Your task to perform on an android device: Show me productivity apps on the Play Store Image 0: 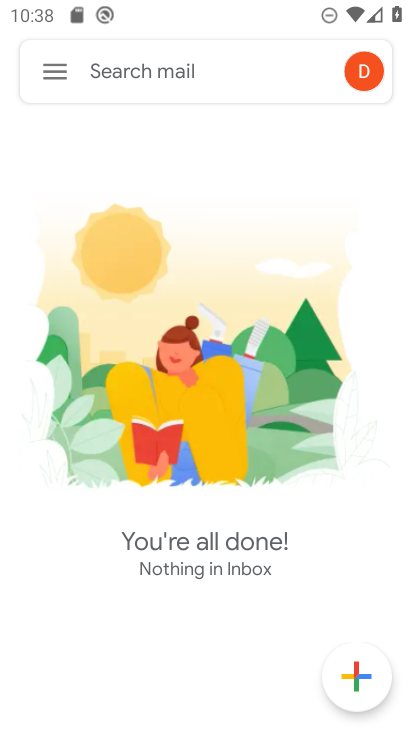
Step 0: press home button
Your task to perform on an android device: Show me productivity apps on the Play Store Image 1: 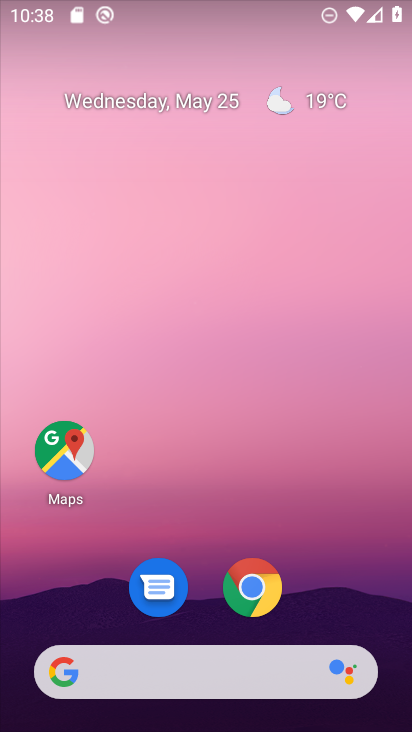
Step 1: drag from (393, 631) to (303, 69)
Your task to perform on an android device: Show me productivity apps on the Play Store Image 2: 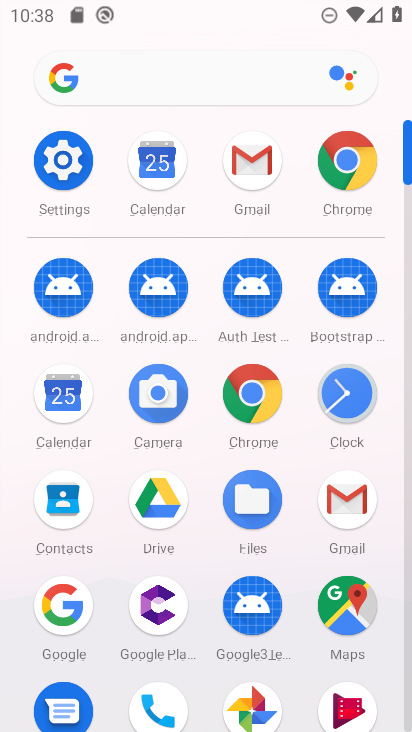
Step 2: click (409, 702)
Your task to perform on an android device: Show me productivity apps on the Play Store Image 3: 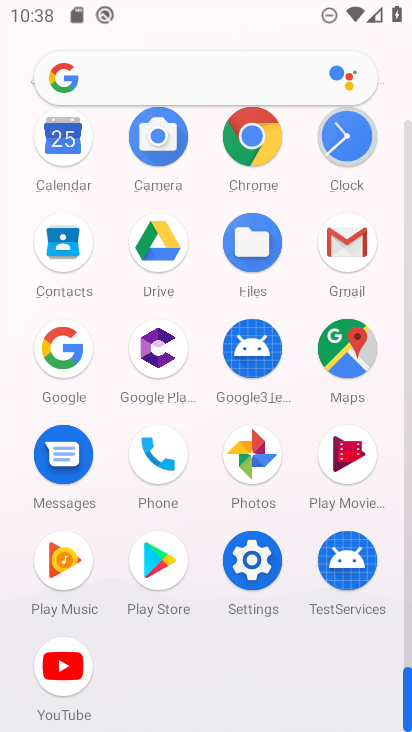
Step 3: click (162, 553)
Your task to perform on an android device: Show me productivity apps on the Play Store Image 4: 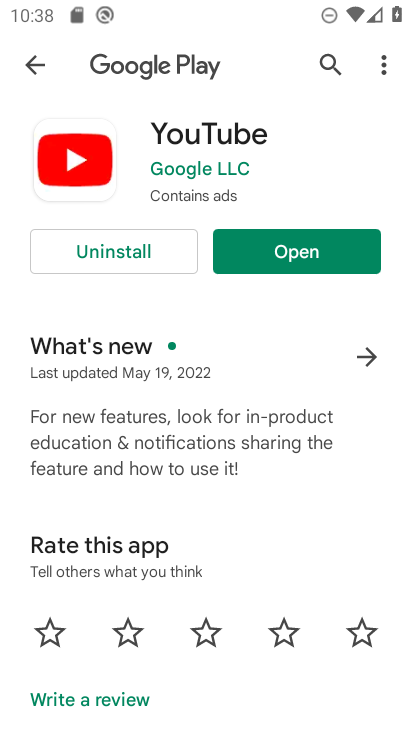
Step 4: press back button
Your task to perform on an android device: Show me productivity apps on the Play Store Image 5: 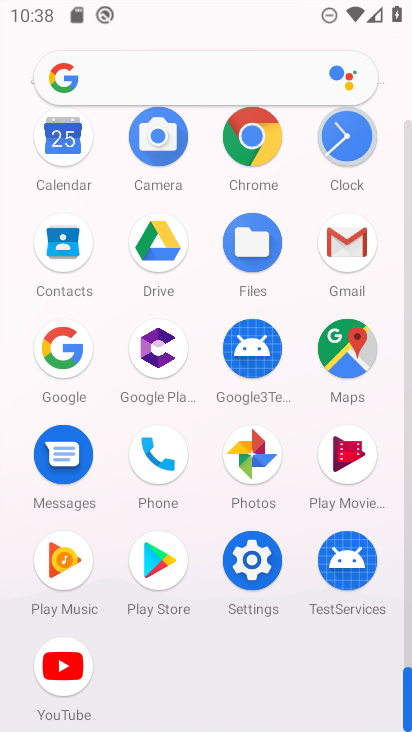
Step 5: click (159, 563)
Your task to perform on an android device: Show me productivity apps on the Play Store Image 6: 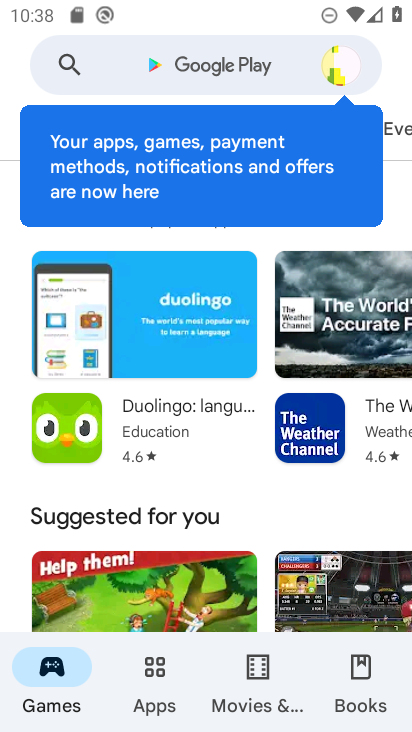
Step 6: click (169, 680)
Your task to perform on an android device: Show me productivity apps on the Play Store Image 7: 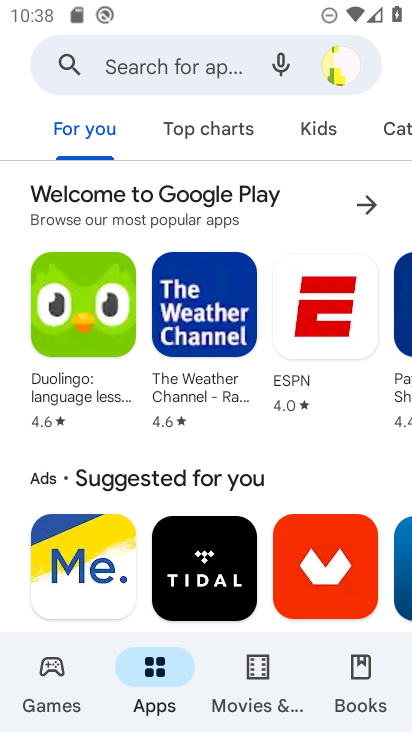
Step 7: click (389, 119)
Your task to perform on an android device: Show me productivity apps on the Play Store Image 8: 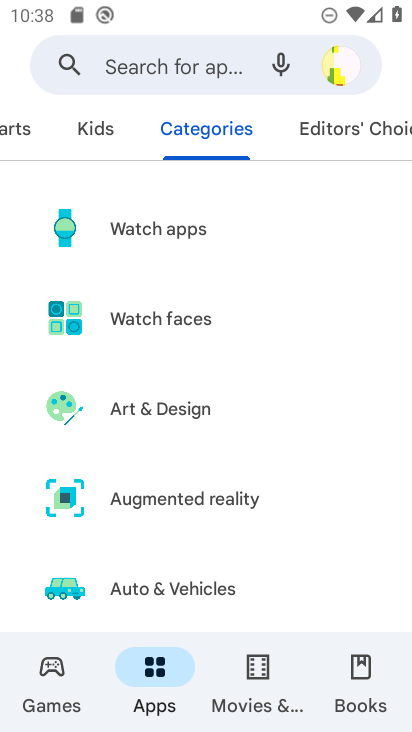
Step 8: drag from (257, 544) to (228, 71)
Your task to perform on an android device: Show me productivity apps on the Play Store Image 9: 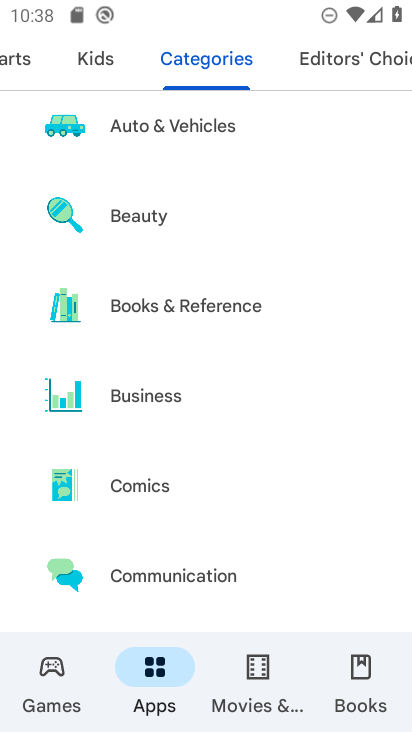
Step 9: drag from (295, 579) to (279, 120)
Your task to perform on an android device: Show me productivity apps on the Play Store Image 10: 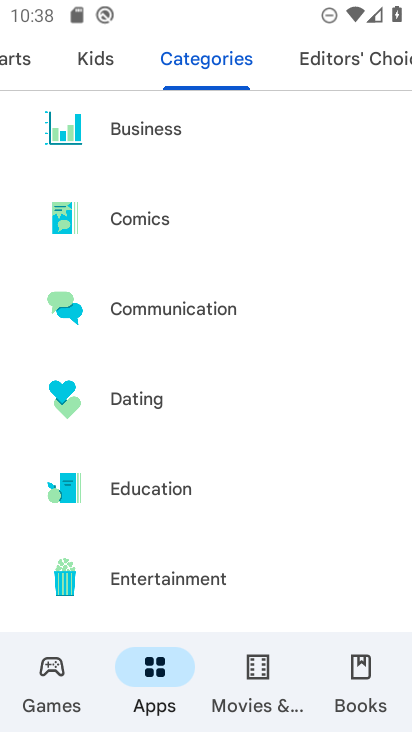
Step 10: drag from (255, 595) to (276, 90)
Your task to perform on an android device: Show me productivity apps on the Play Store Image 11: 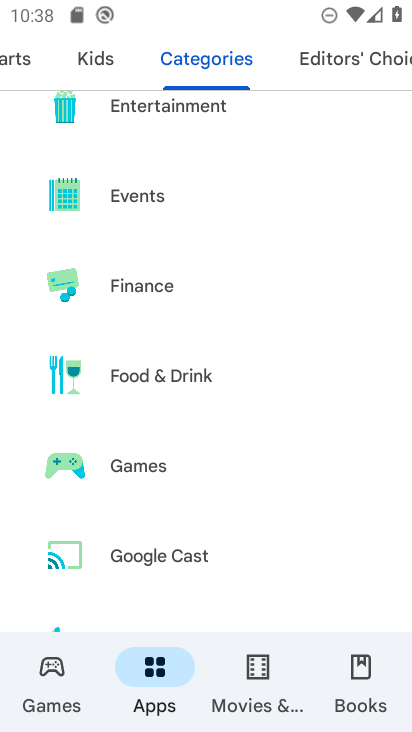
Step 11: drag from (267, 560) to (226, 66)
Your task to perform on an android device: Show me productivity apps on the Play Store Image 12: 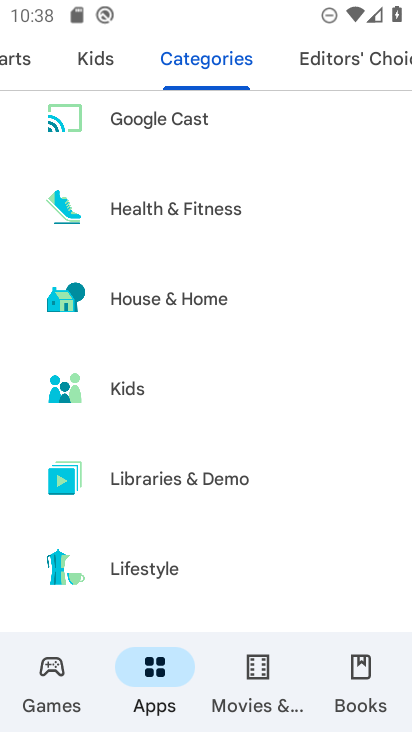
Step 12: drag from (239, 550) to (265, 156)
Your task to perform on an android device: Show me productivity apps on the Play Store Image 13: 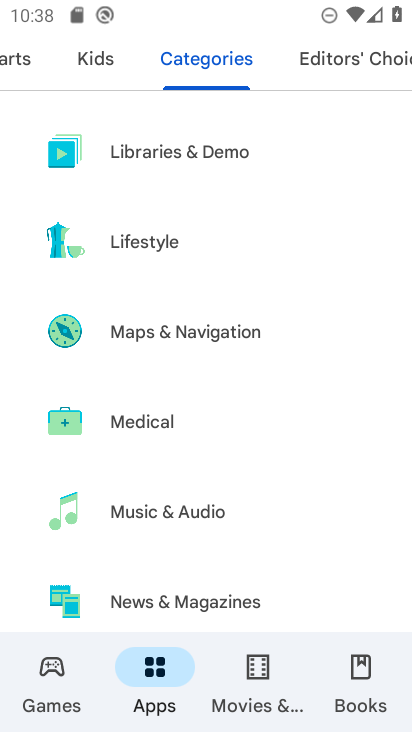
Step 13: drag from (283, 521) to (306, 97)
Your task to perform on an android device: Show me productivity apps on the Play Store Image 14: 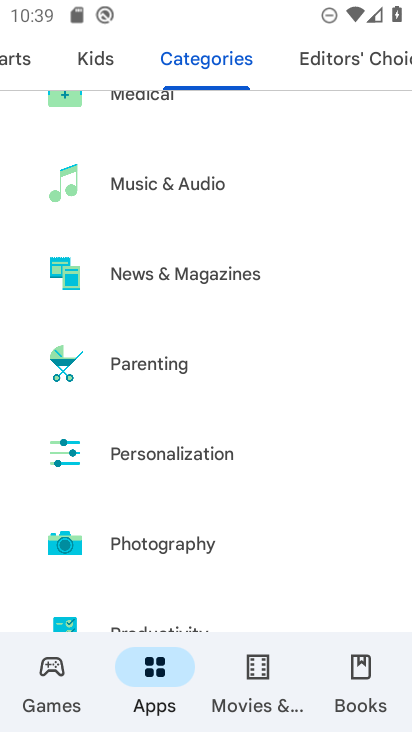
Step 14: drag from (240, 526) to (263, 277)
Your task to perform on an android device: Show me productivity apps on the Play Store Image 15: 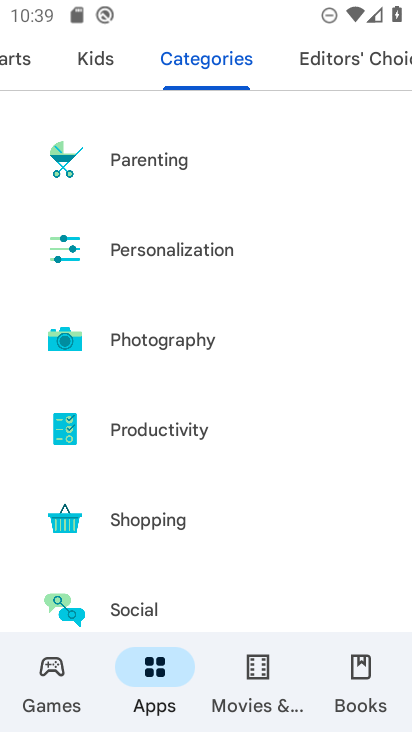
Step 15: click (169, 410)
Your task to perform on an android device: Show me productivity apps on the Play Store Image 16: 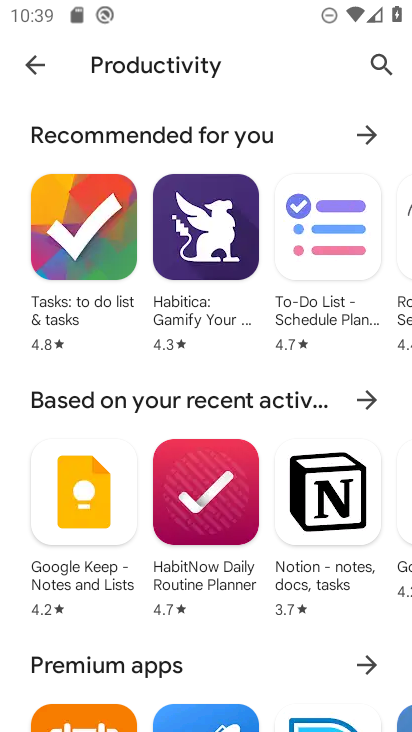
Step 16: drag from (253, 617) to (248, 299)
Your task to perform on an android device: Show me productivity apps on the Play Store Image 17: 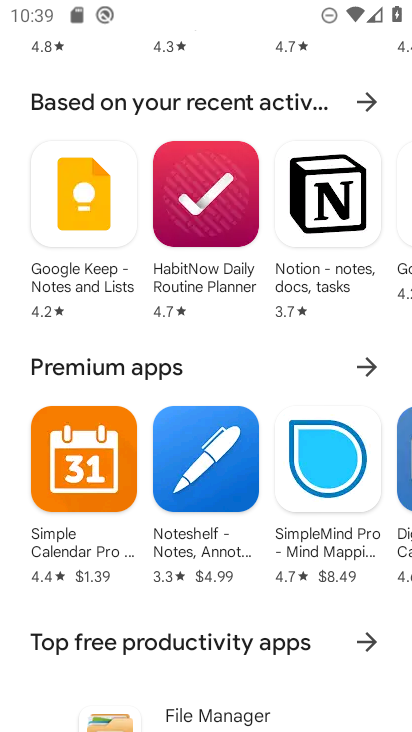
Step 17: drag from (248, 299) to (257, 173)
Your task to perform on an android device: Show me productivity apps on the Play Store Image 18: 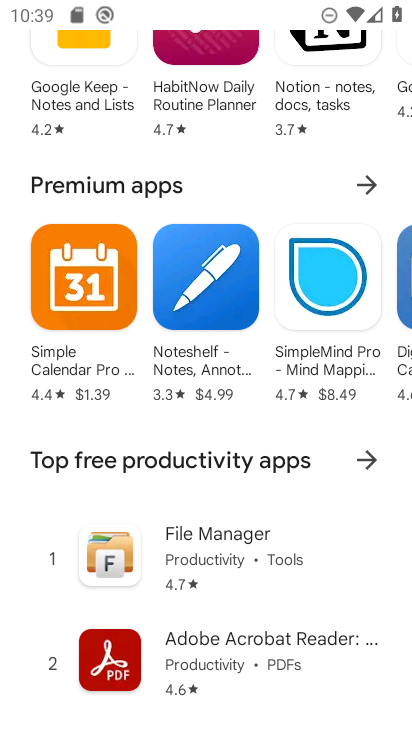
Step 18: click (365, 457)
Your task to perform on an android device: Show me productivity apps on the Play Store Image 19: 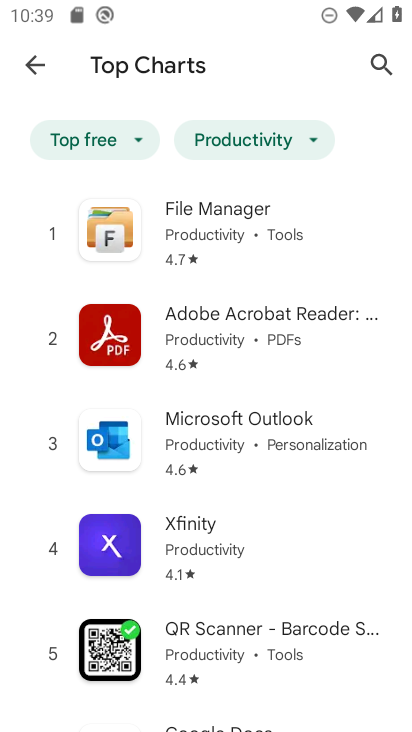
Step 19: task complete